Your task to perform on an android device: see sites visited before in the chrome app Image 0: 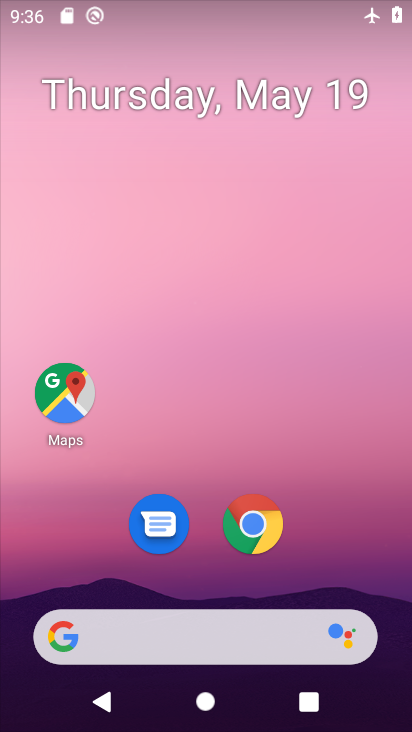
Step 0: click (256, 523)
Your task to perform on an android device: see sites visited before in the chrome app Image 1: 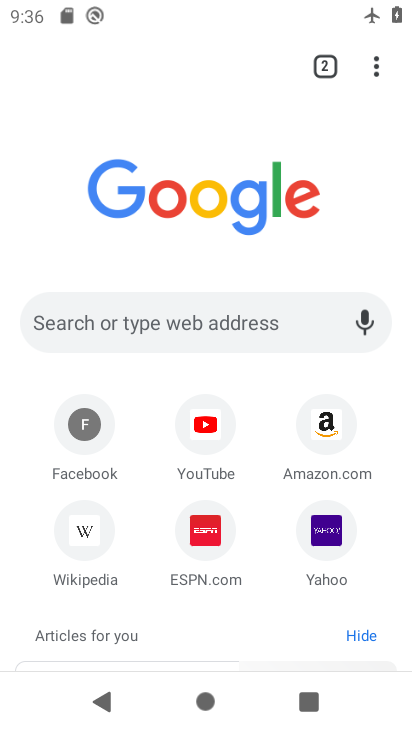
Step 1: click (380, 66)
Your task to perform on an android device: see sites visited before in the chrome app Image 2: 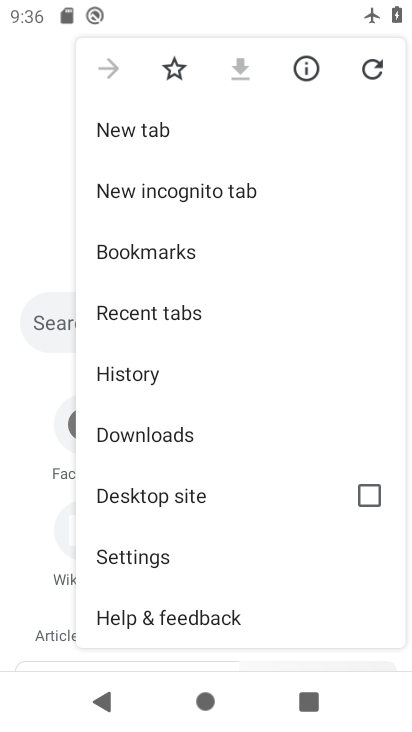
Step 2: click (170, 307)
Your task to perform on an android device: see sites visited before in the chrome app Image 3: 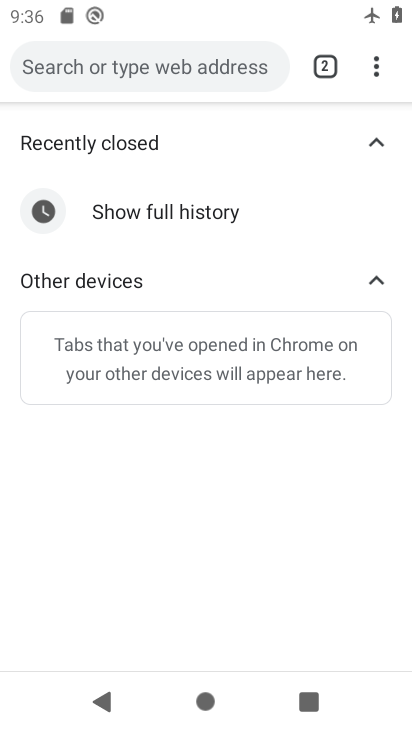
Step 3: click (368, 271)
Your task to perform on an android device: see sites visited before in the chrome app Image 4: 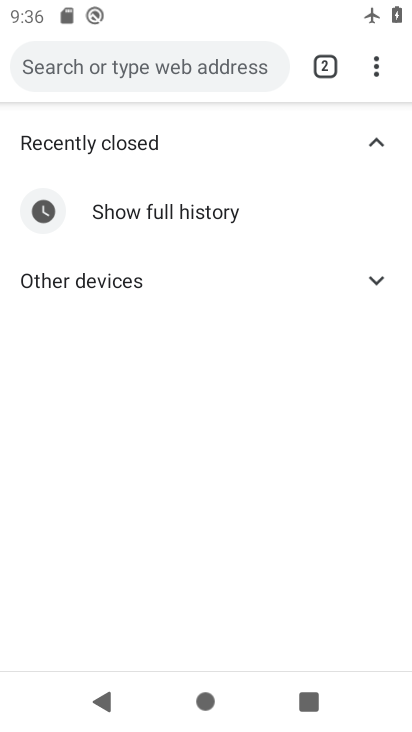
Step 4: click (368, 271)
Your task to perform on an android device: see sites visited before in the chrome app Image 5: 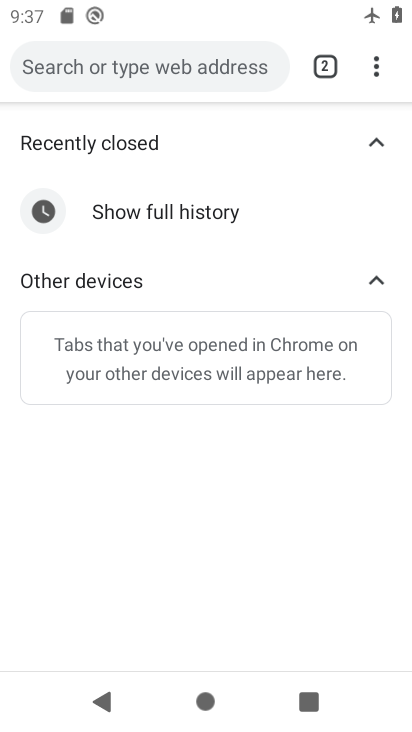
Step 5: click (371, 137)
Your task to perform on an android device: see sites visited before in the chrome app Image 6: 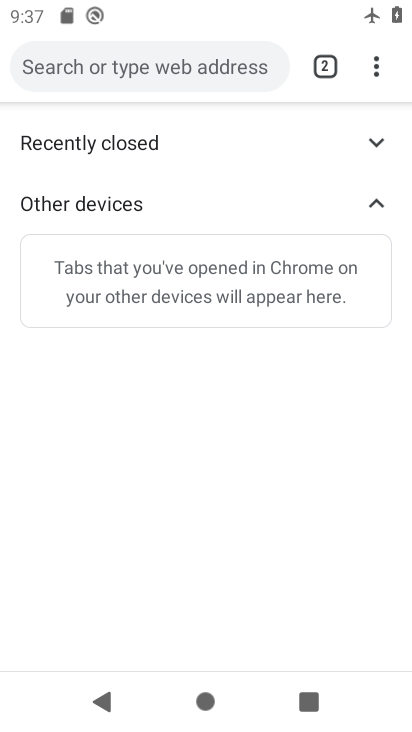
Step 6: click (371, 137)
Your task to perform on an android device: see sites visited before in the chrome app Image 7: 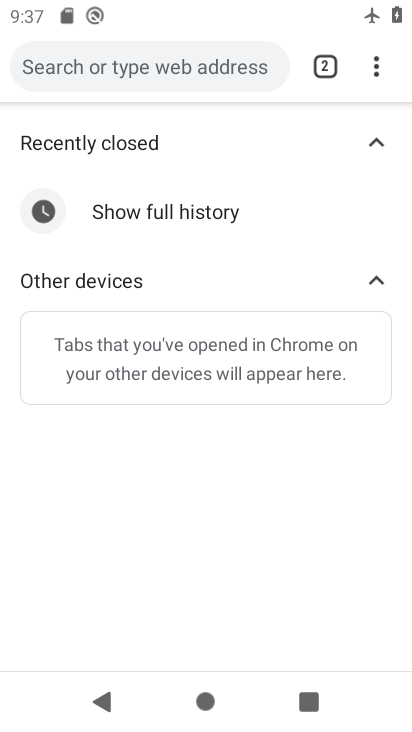
Step 7: task complete